Your task to perform on an android device: What is the news today? Image 0: 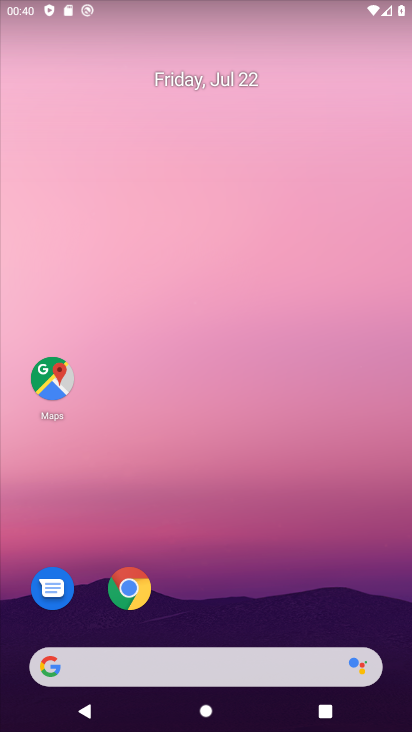
Step 0: click (137, 663)
Your task to perform on an android device: What is the news today? Image 1: 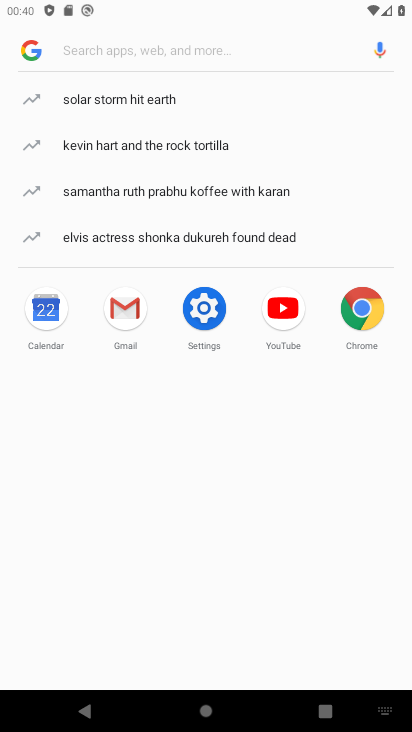
Step 1: click (157, 45)
Your task to perform on an android device: What is the news today? Image 2: 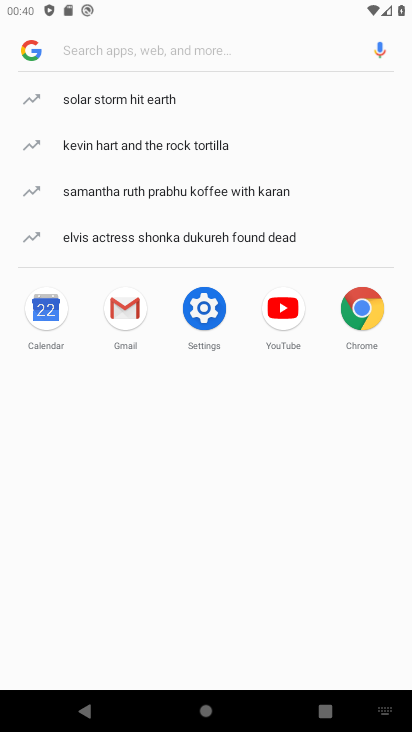
Step 2: type "news today"
Your task to perform on an android device: What is the news today? Image 3: 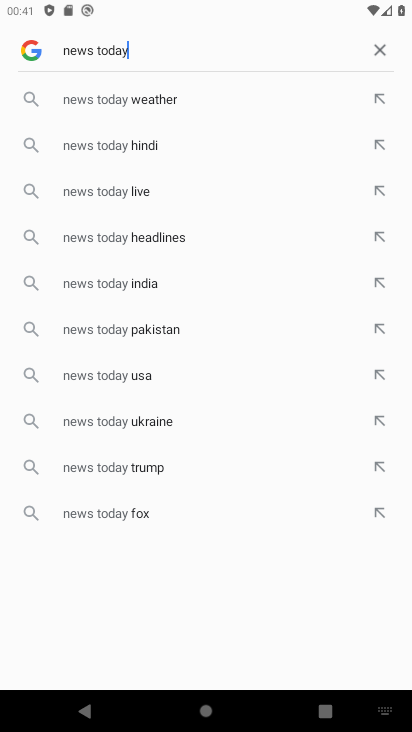
Step 3: click (107, 192)
Your task to perform on an android device: What is the news today? Image 4: 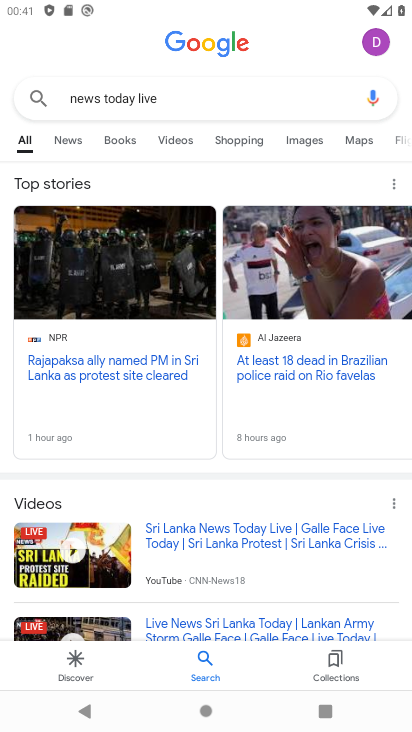
Step 4: task complete